Your task to perform on an android device: toggle pop-ups in chrome Image 0: 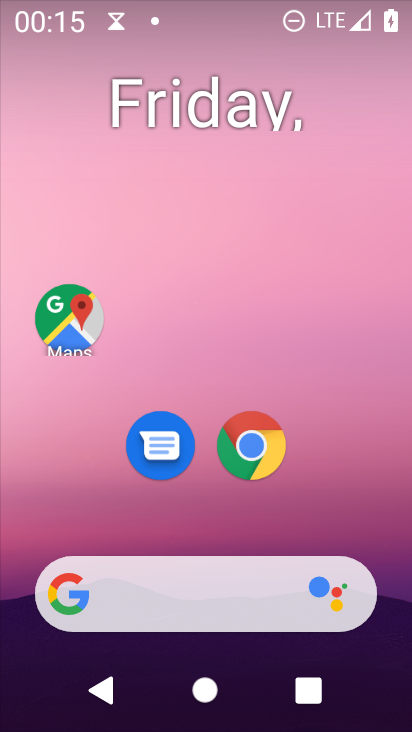
Step 0: click (265, 443)
Your task to perform on an android device: toggle pop-ups in chrome Image 1: 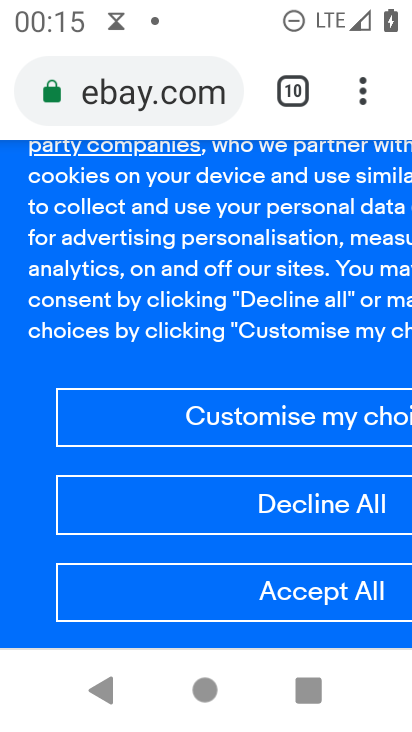
Step 1: click (363, 100)
Your task to perform on an android device: toggle pop-ups in chrome Image 2: 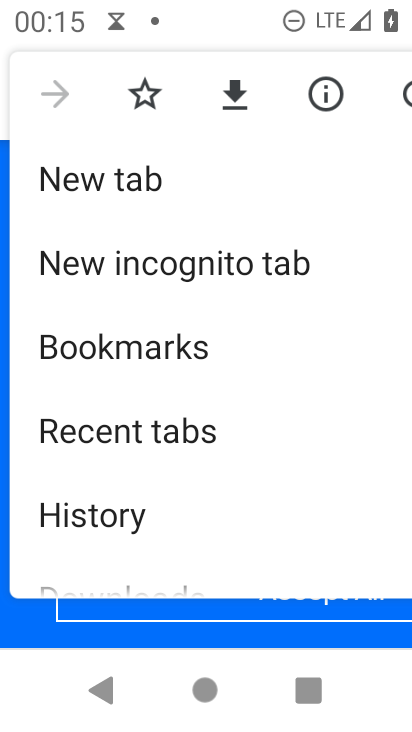
Step 2: drag from (110, 554) to (147, 129)
Your task to perform on an android device: toggle pop-ups in chrome Image 3: 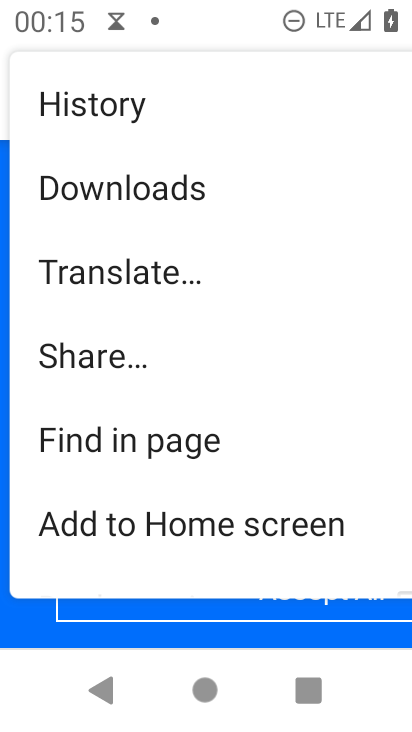
Step 3: drag from (166, 559) to (178, 134)
Your task to perform on an android device: toggle pop-ups in chrome Image 4: 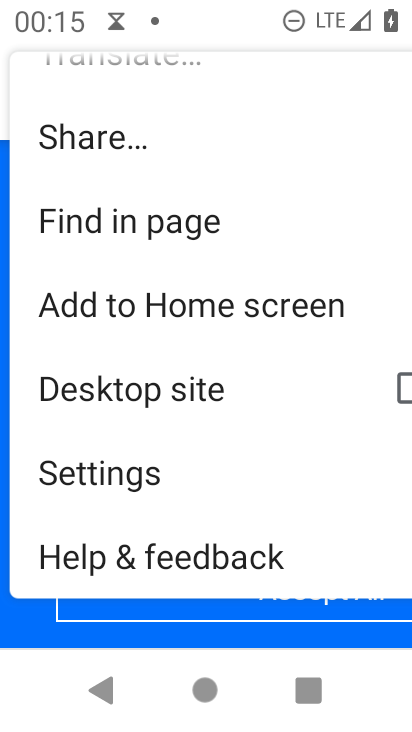
Step 4: click (125, 467)
Your task to perform on an android device: toggle pop-ups in chrome Image 5: 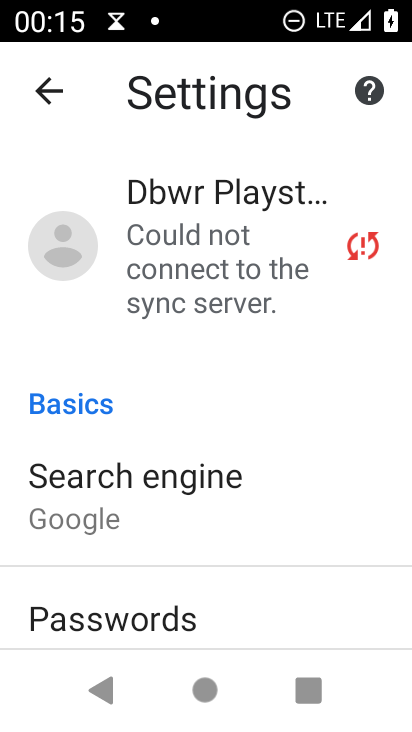
Step 5: drag from (184, 636) to (186, 222)
Your task to perform on an android device: toggle pop-ups in chrome Image 6: 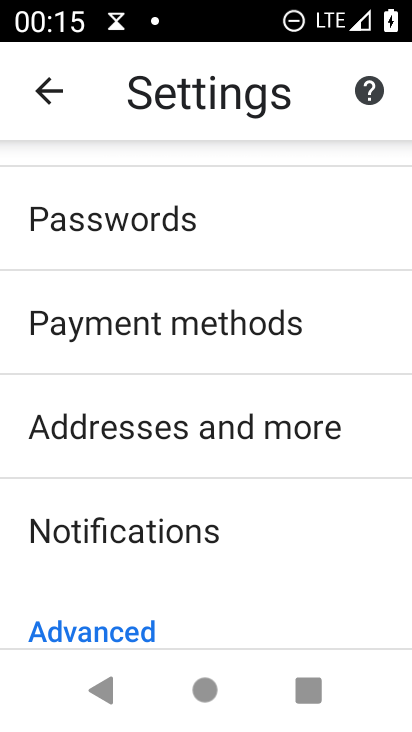
Step 6: drag from (248, 621) to (254, 179)
Your task to perform on an android device: toggle pop-ups in chrome Image 7: 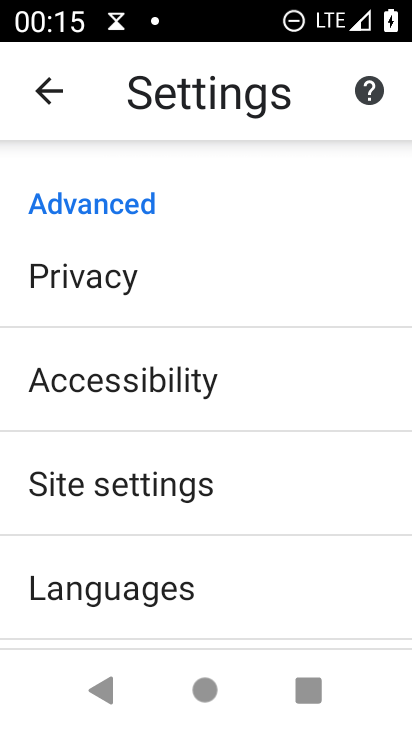
Step 7: click (185, 480)
Your task to perform on an android device: toggle pop-ups in chrome Image 8: 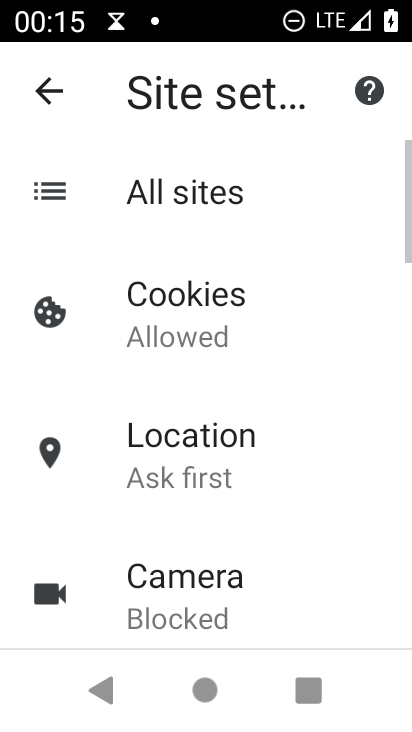
Step 8: drag from (248, 581) to (236, 170)
Your task to perform on an android device: toggle pop-ups in chrome Image 9: 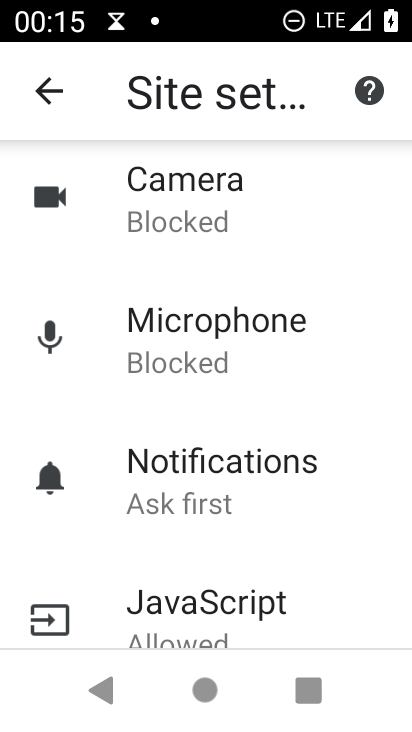
Step 9: drag from (244, 639) to (246, 216)
Your task to perform on an android device: toggle pop-ups in chrome Image 10: 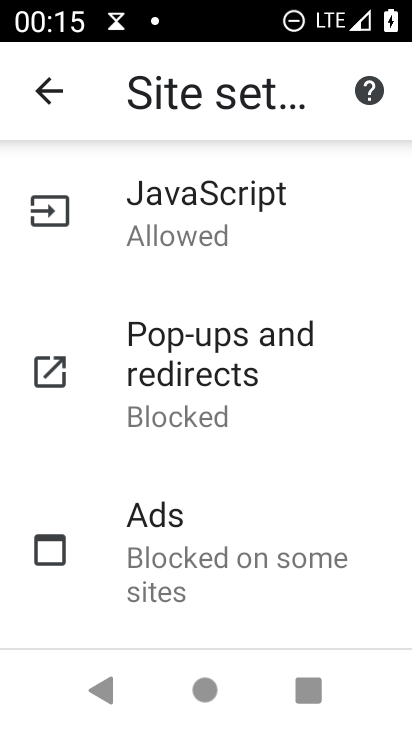
Step 10: drag from (235, 617) to (230, 486)
Your task to perform on an android device: toggle pop-ups in chrome Image 11: 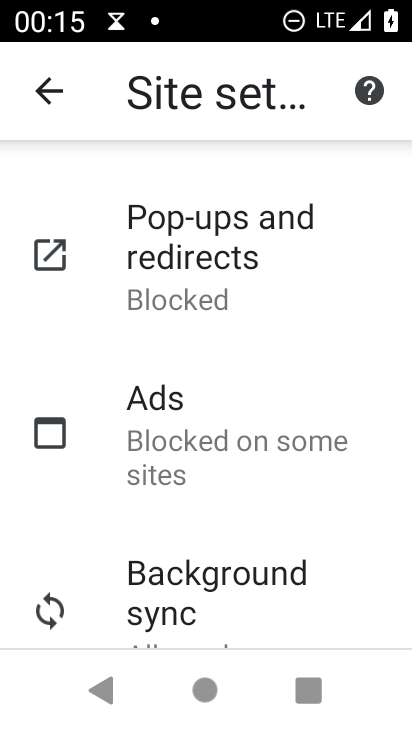
Step 11: click (203, 241)
Your task to perform on an android device: toggle pop-ups in chrome Image 12: 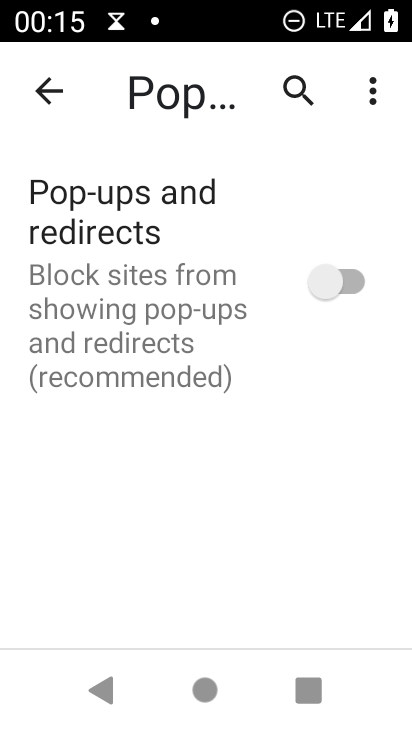
Step 12: click (357, 279)
Your task to perform on an android device: toggle pop-ups in chrome Image 13: 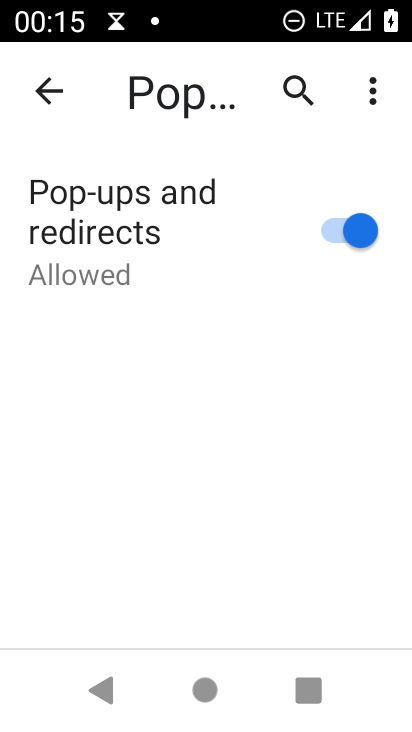
Step 13: task complete